Your task to perform on an android device: turn on notifications settings in the gmail app Image 0: 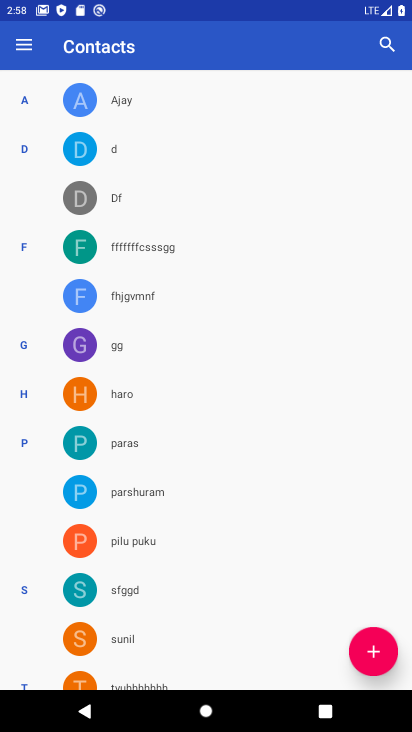
Step 0: press home button
Your task to perform on an android device: turn on notifications settings in the gmail app Image 1: 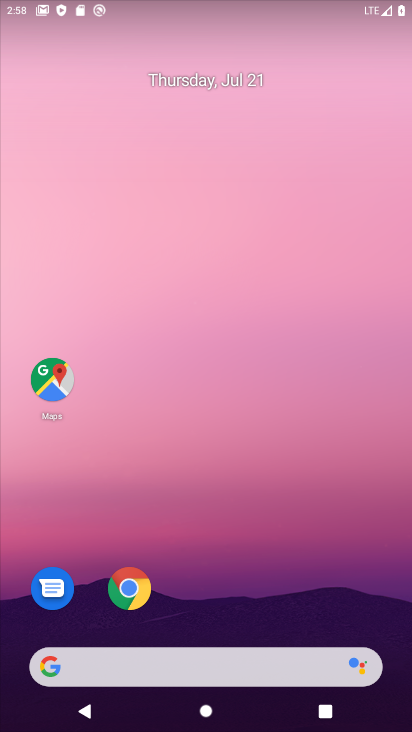
Step 1: drag from (303, 631) to (303, 149)
Your task to perform on an android device: turn on notifications settings in the gmail app Image 2: 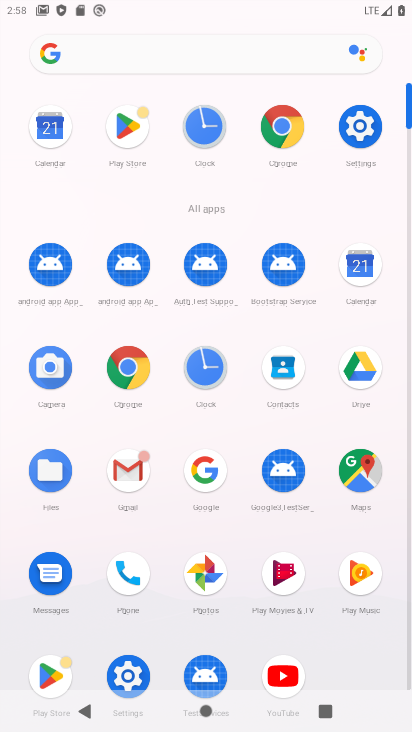
Step 2: click (116, 461)
Your task to perform on an android device: turn on notifications settings in the gmail app Image 3: 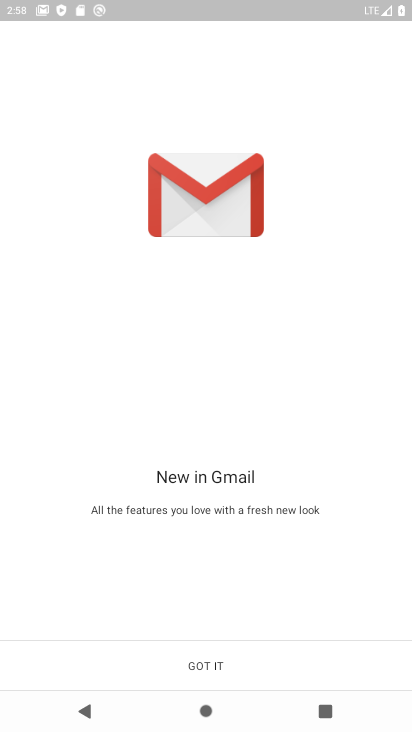
Step 3: click (95, 668)
Your task to perform on an android device: turn on notifications settings in the gmail app Image 4: 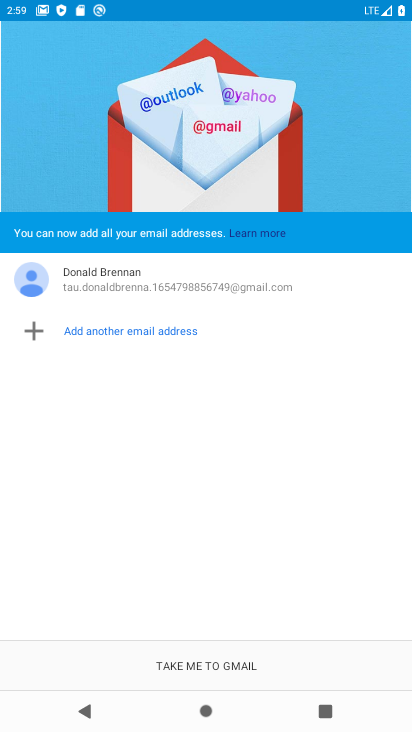
Step 4: click (136, 661)
Your task to perform on an android device: turn on notifications settings in the gmail app Image 5: 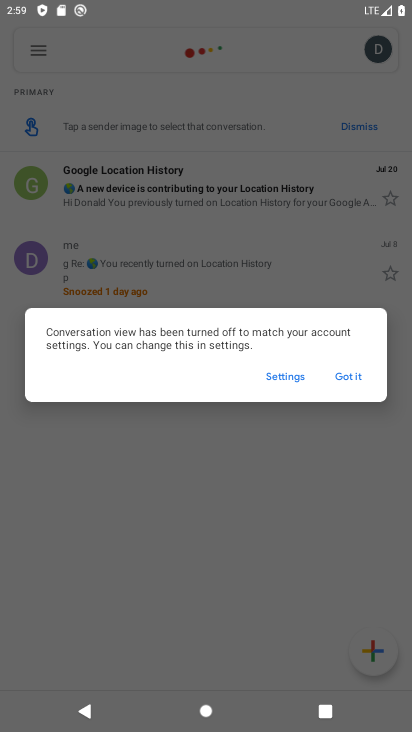
Step 5: click (347, 381)
Your task to perform on an android device: turn on notifications settings in the gmail app Image 6: 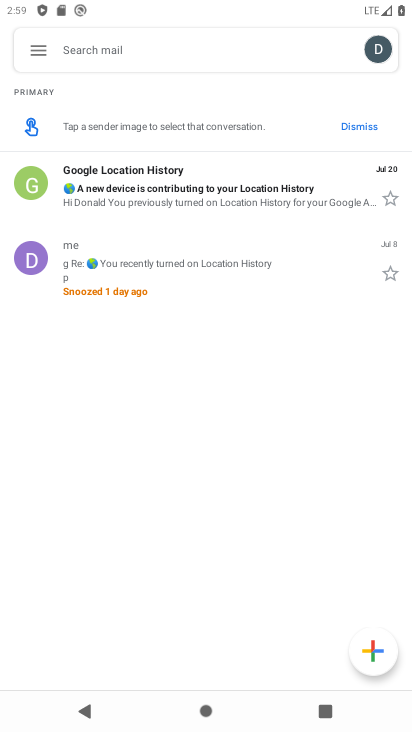
Step 6: click (41, 56)
Your task to perform on an android device: turn on notifications settings in the gmail app Image 7: 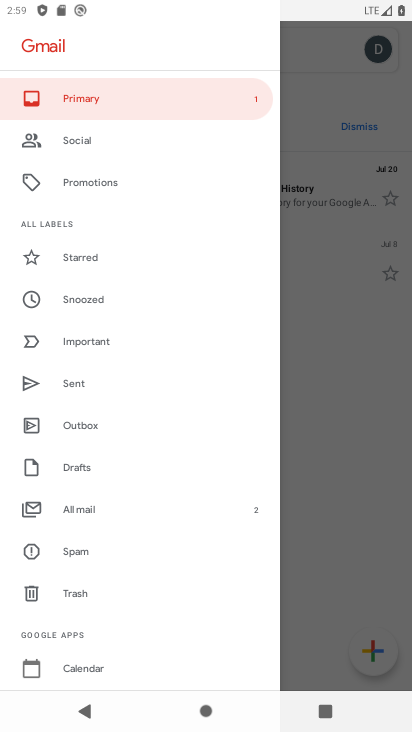
Step 7: drag from (146, 626) to (136, 302)
Your task to perform on an android device: turn on notifications settings in the gmail app Image 8: 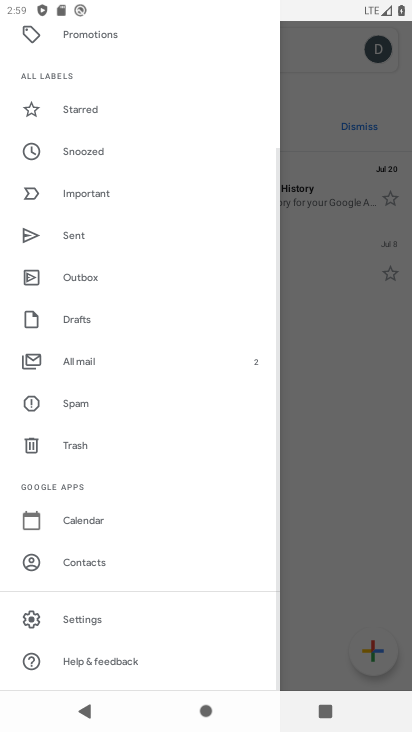
Step 8: click (141, 625)
Your task to perform on an android device: turn on notifications settings in the gmail app Image 9: 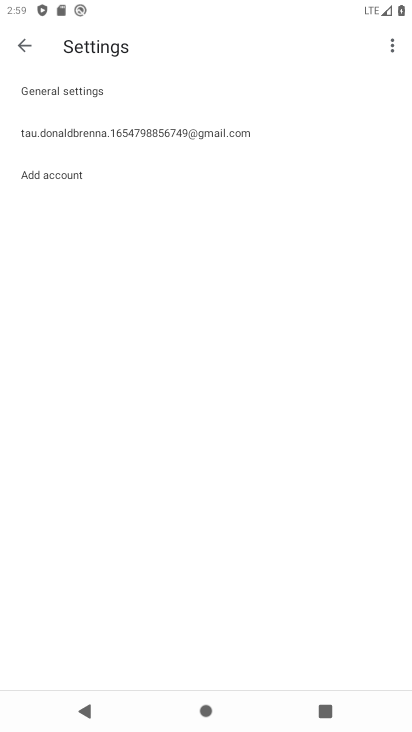
Step 9: click (121, 134)
Your task to perform on an android device: turn on notifications settings in the gmail app Image 10: 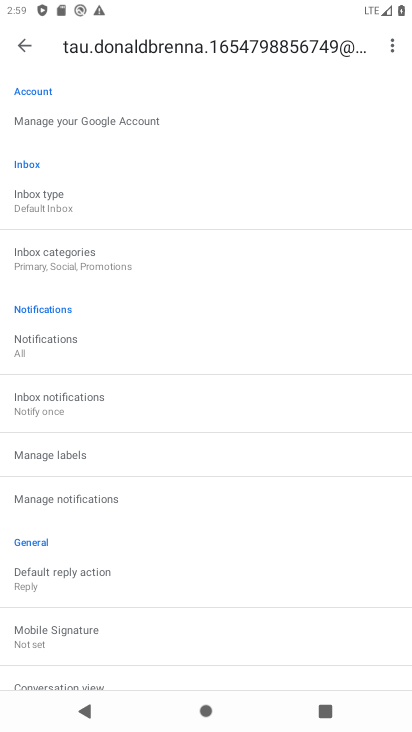
Step 10: click (63, 491)
Your task to perform on an android device: turn on notifications settings in the gmail app Image 11: 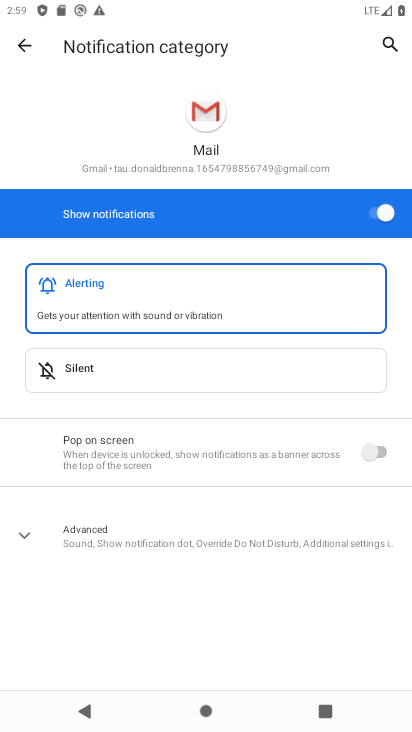
Step 11: task complete